Your task to perform on an android device: Open the stopwatch Image 0: 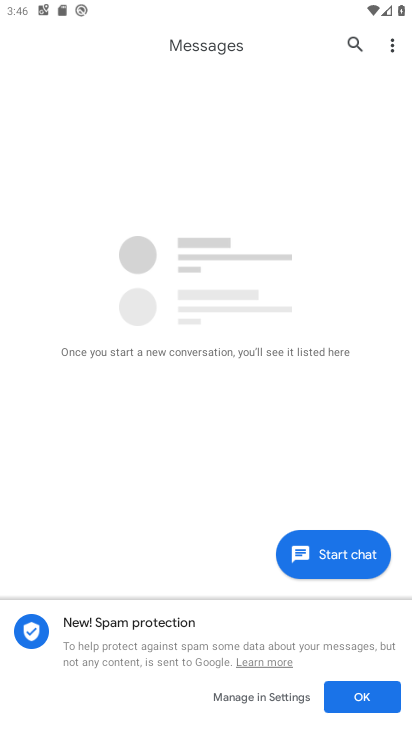
Step 0: press home button
Your task to perform on an android device: Open the stopwatch Image 1: 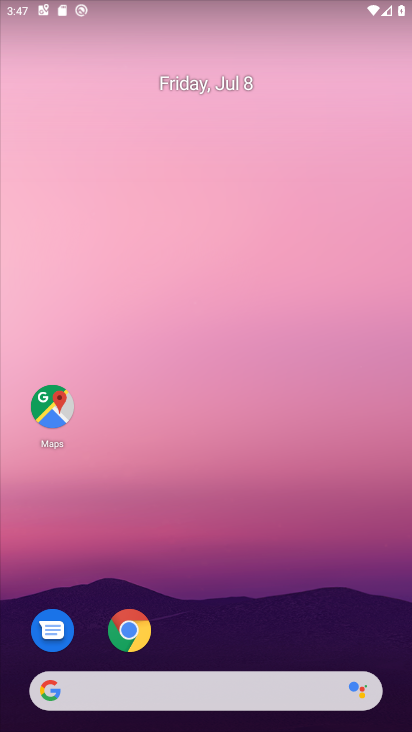
Step 1: drag from (266, 479) to (353, 37)
Your task to perform on an android device: Open the stopwatch Image 2: 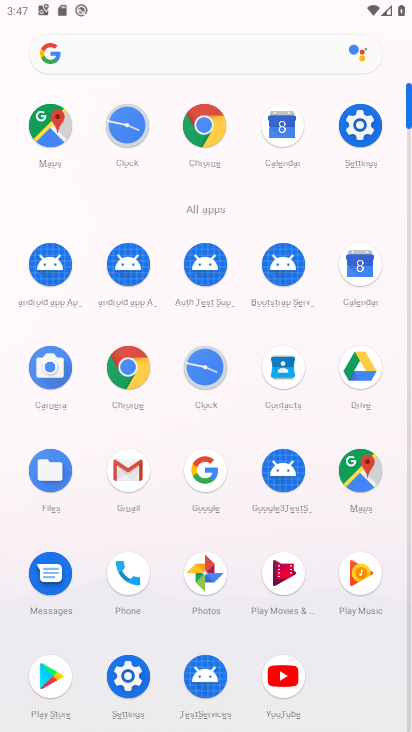
Step 2: click (123, 123)
Your task to perform on an android device: Open the stopwatch Image 3: 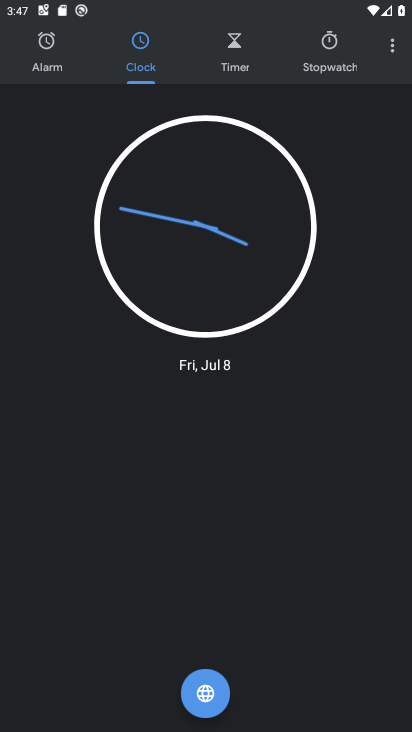
Step 3: click (336, 59)
Your task to perform on an android device: Open the stopwatch Image 4: 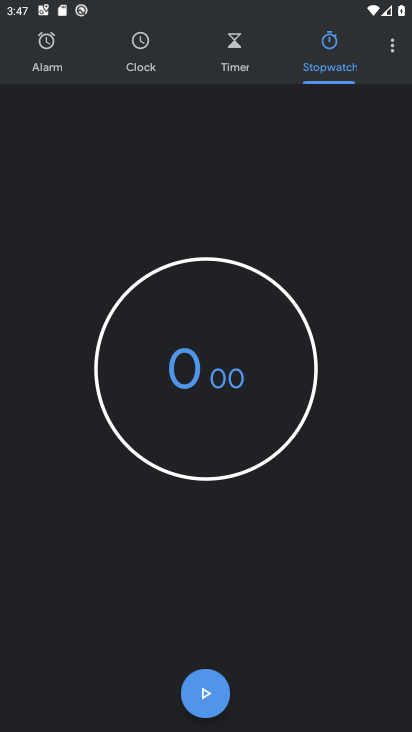
Step 4: task complete